Your task to perform on an android device: Show me recent news Image 0: 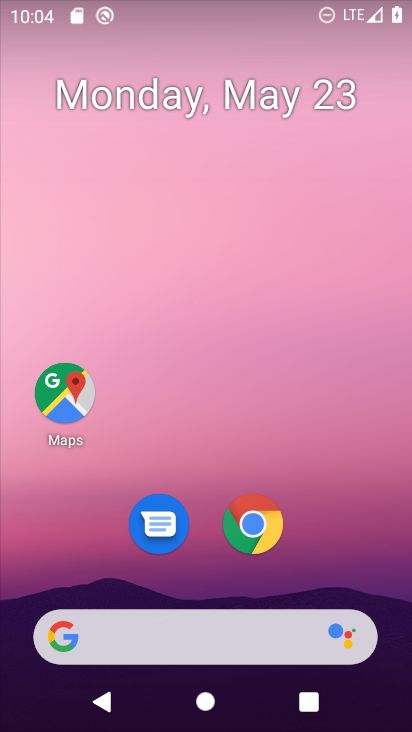
Step 0: click (212, 650)
Your task to perform on an android device: Show me recent news Image 1: 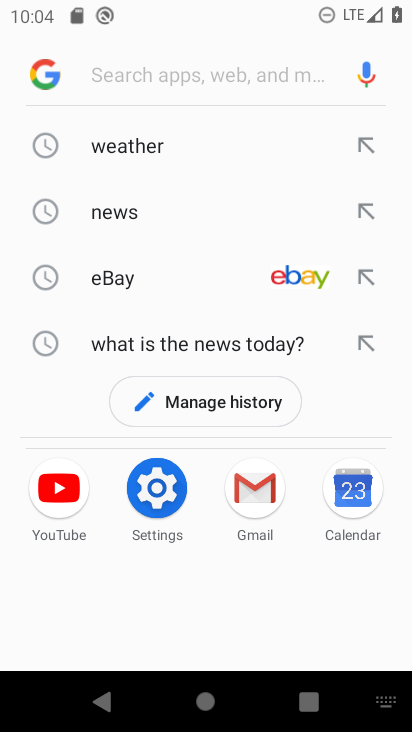
Step 1: click (111, 205)
Your task to perform on an android device: Show me recent news Image 2: 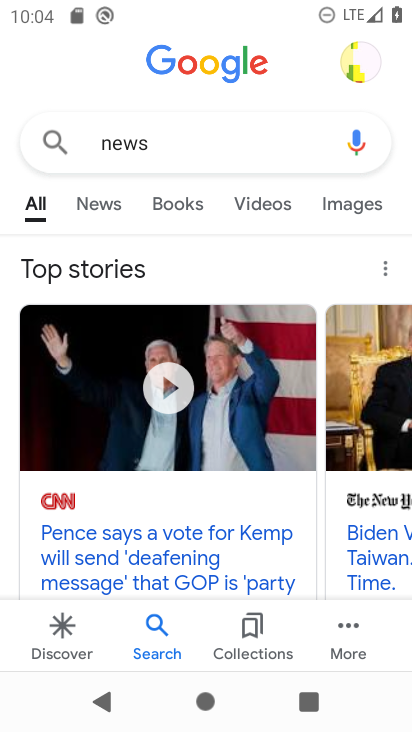
Step 2: drag from (148, 364) to (153, 231)
Your task to perform on an android device: Show me recent news Image 3: 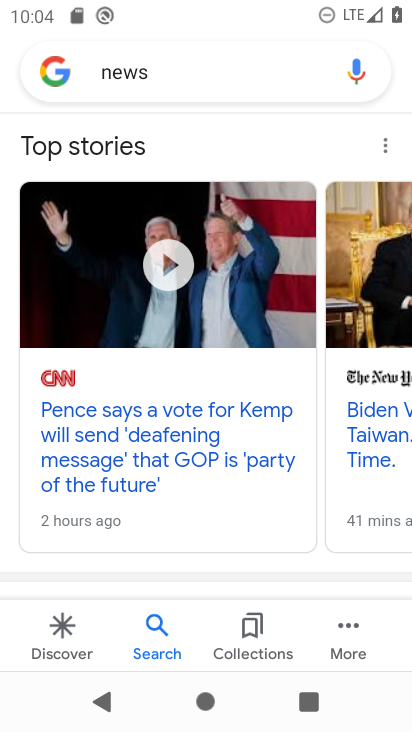
Step 3: drag from (249, 483) to (94, 514)
Your task to perform on an android device: Show me recent news Image 4: 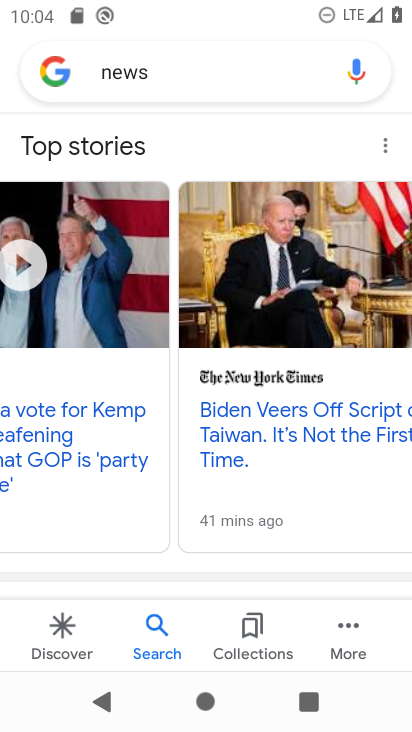
Step 4: drag from (303, 489) to (48, 510)
Your task to perform on an android device: Show me recent news Image 5: 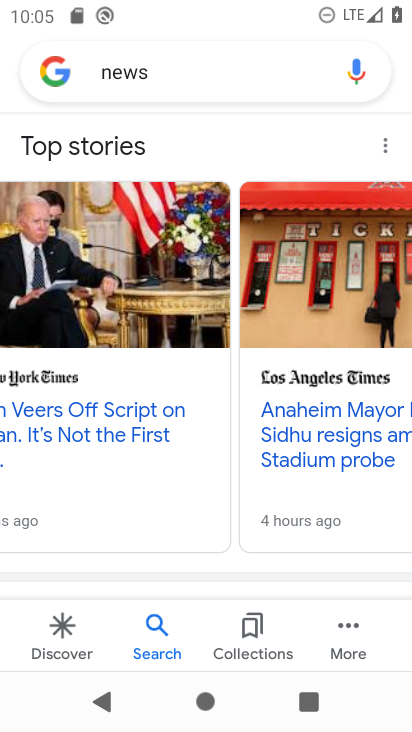
Step 5: drag from (110, 478) to (231, 471)
Your task to perform on an android device: Show me recent news Image 6: 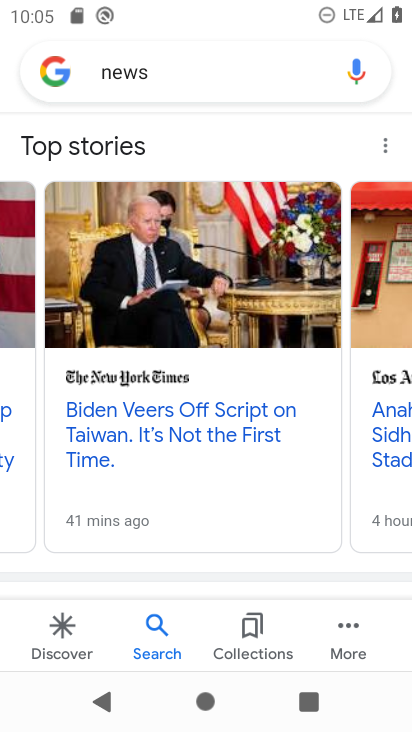
Step 6: click (229, 435)
Your task to perform on an android device: Show me recent news Image 7: 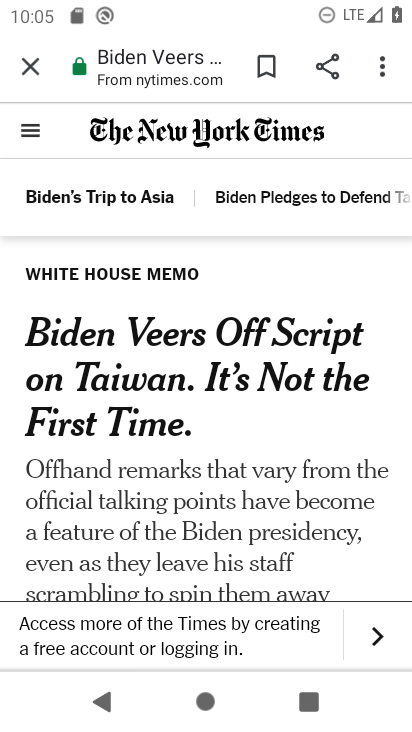
Step 7: task complete